Your task to perform on an android device: toggle javascript in the chrome app Image 0: 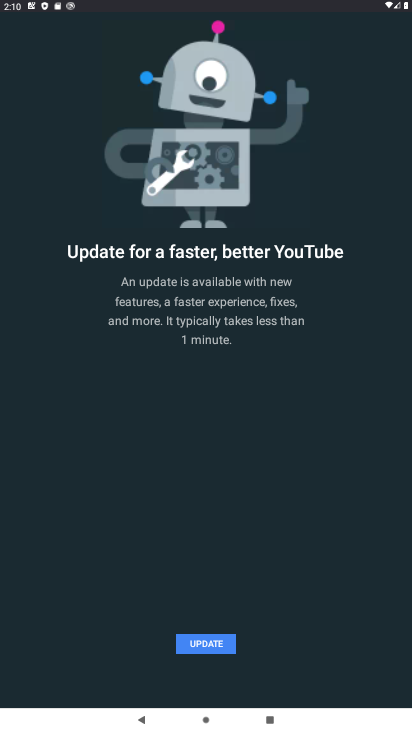
Step 0: press home button
Your task to perform on an android device: toggle javascript in the chrome app Image 1: 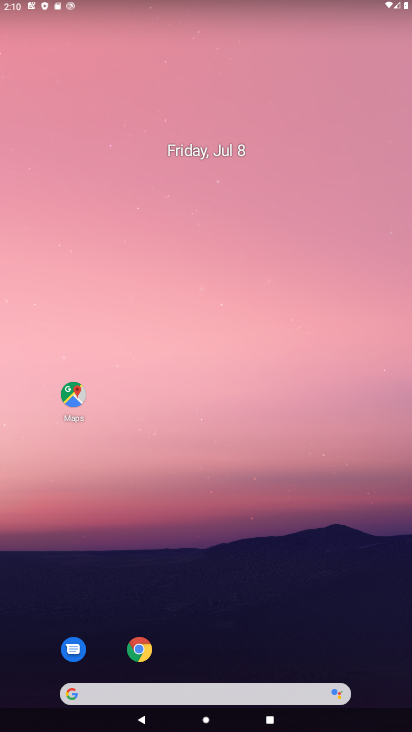
Step 1: click (141, 652)
Your task to perform on an android device: toggle javascript in the chrome app Image 2: 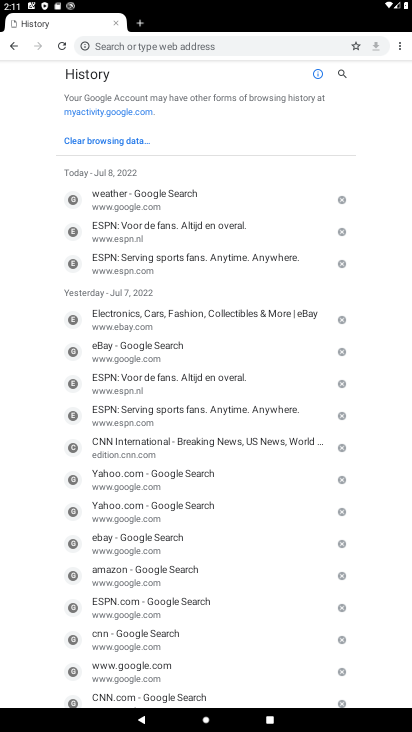
Step 2: click (400, 46)
Your task to perform on an android device: toggle javascript in the chrome app Image 3: 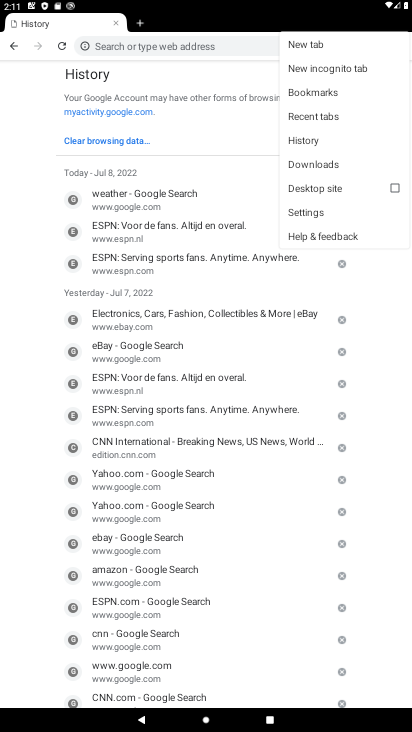
Step 3: click (310, 209)
Your task to perform on an android device: toggle javascript in the chrome app Image 4: 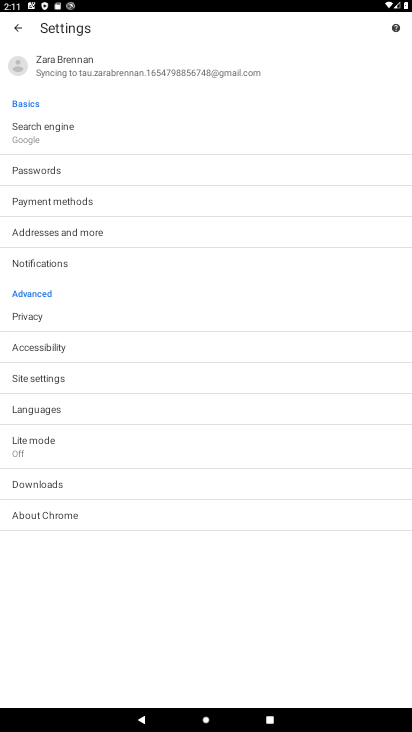
Step 4: click (37, 373)
Your task to perform on an android device: toggle javascript in the chrome app Image 5: 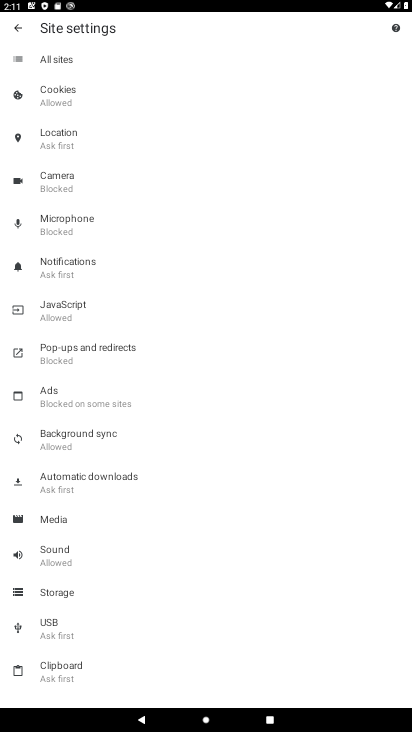
Step 5: click (56, 304)
Your task to perform on an android device: toggle javascript in the chrome app Image 6: 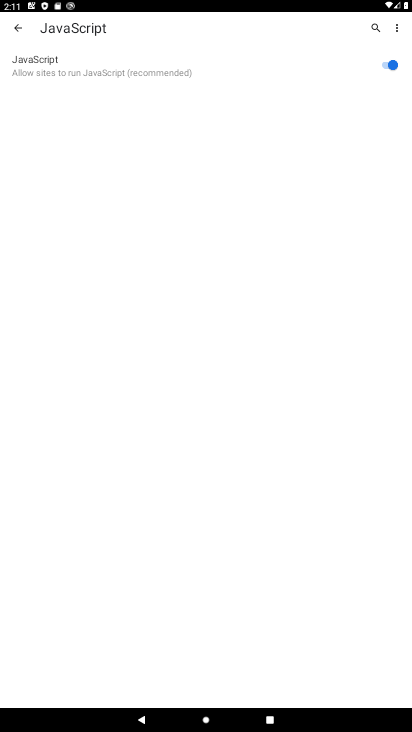
Step 6: click (383, 64)
Your task to perform on an android device: toggle javascript in the chrome app Image 7: 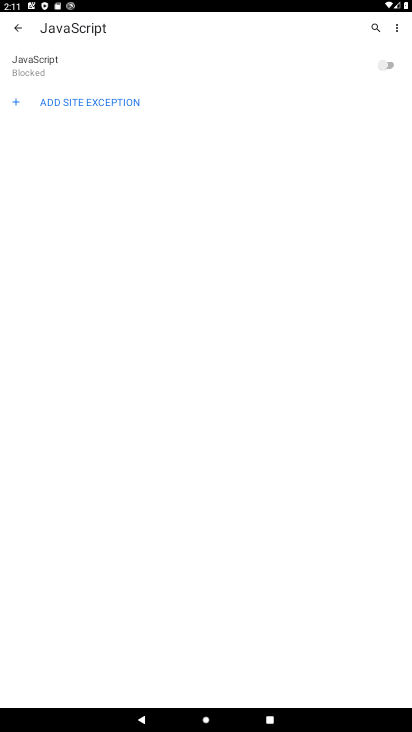
Step 7: task complete